Your task to perform on an android device: check out phone information Image 0: 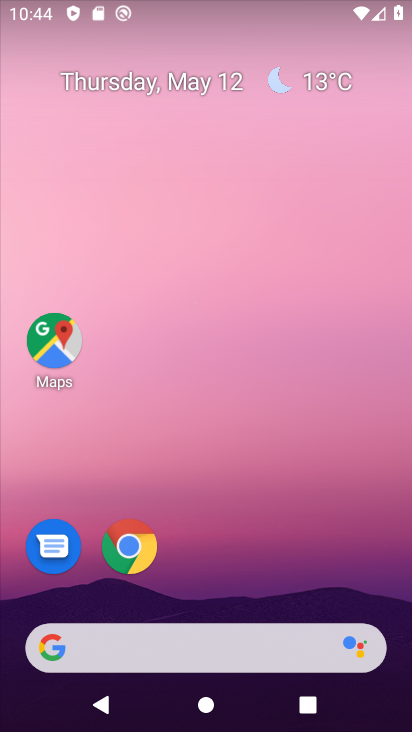
Step 0: press home button
Your task to perform on an android device: check out phone information Image 1: 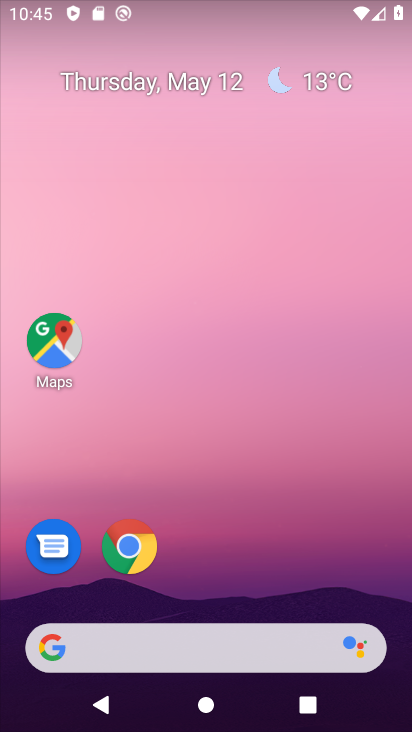
Step 1: drag from (251, 676) to (199, 274)
Your task to perform on an android device: check out phone information Image 2: 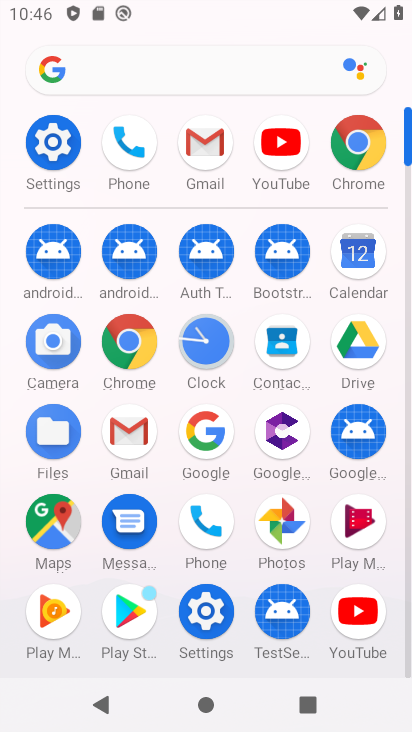
Step 2: click (195, 624)
Your task to perform on an android device: check out phone information Image 3: 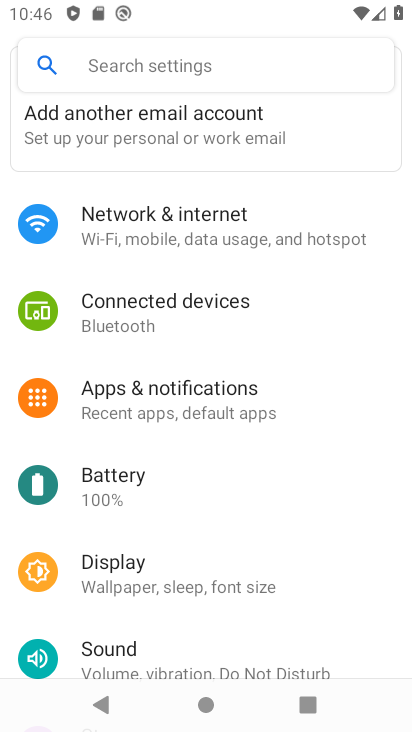
Step 3: click (161, 60)
Your task to perform on an android device: check out phone information Image 4: 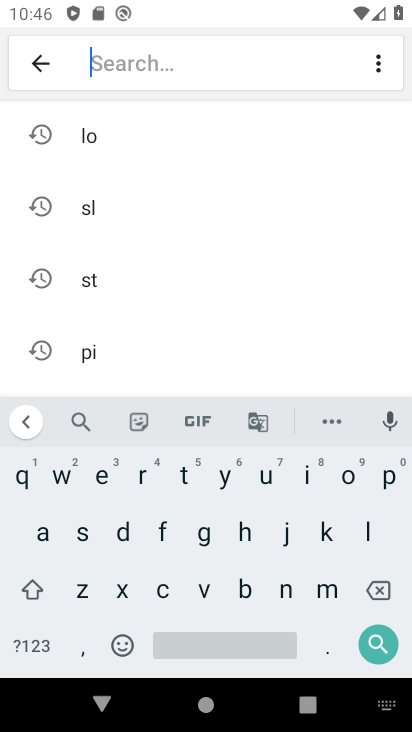
Step 4: click (40, 529)
Your task to perform on an android device: check out phone information Image 5: 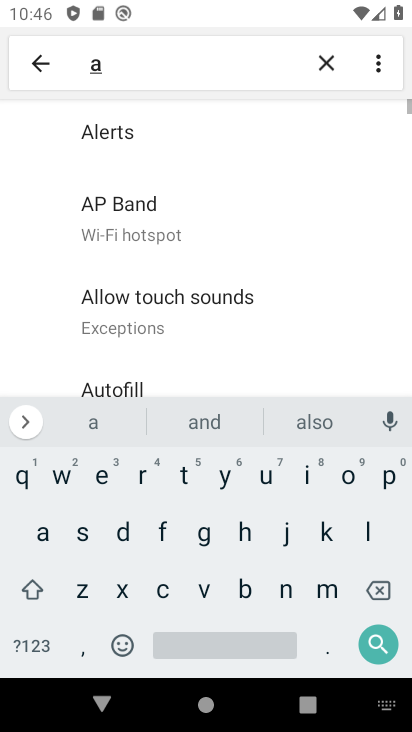
Step 5: click (243, 588)
Your task to perform on an android device: check out phone information Image 6: 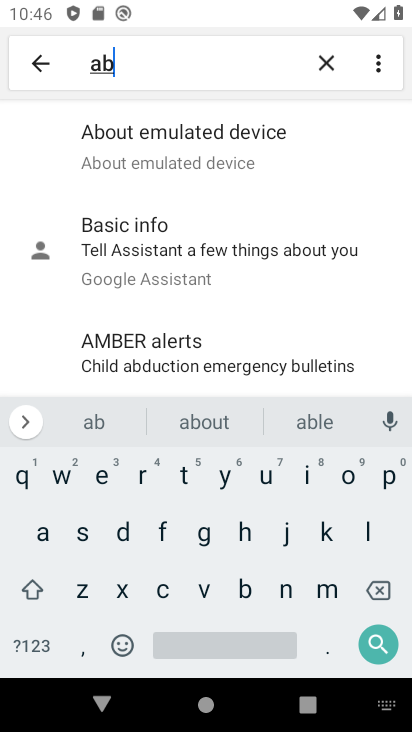
Step 6: click (185, 147)
Your task to perform on an android device: check out phone information Image 7: 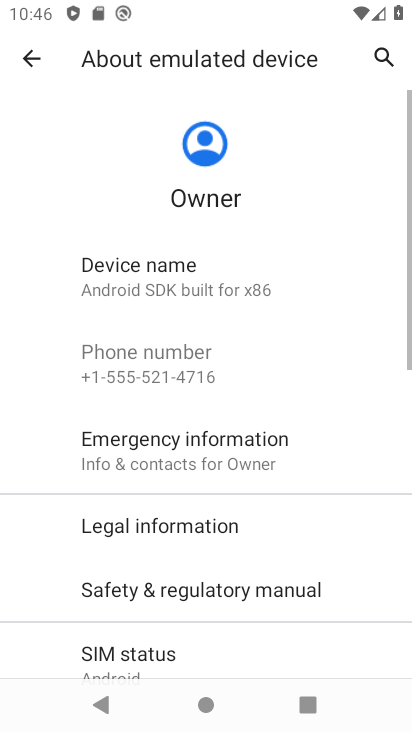
Step 7: task complete